Your task to perform on an android device: turn on priority inbox in the gmail app Image 0: 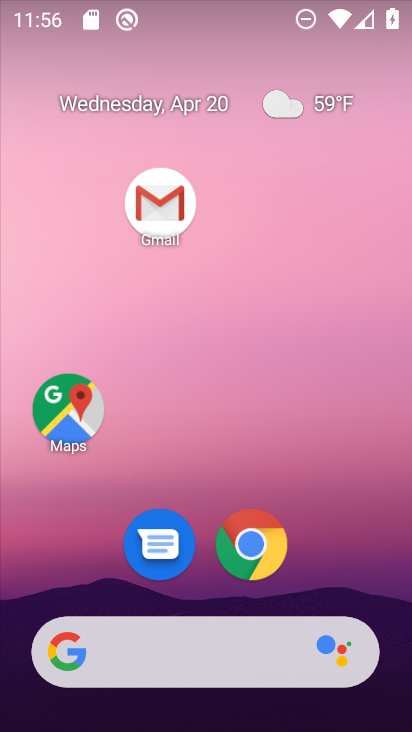
Step 0: click (171, 181)
Your task to perform on an android device: turn on priority inbox in the gmail app Image 1: 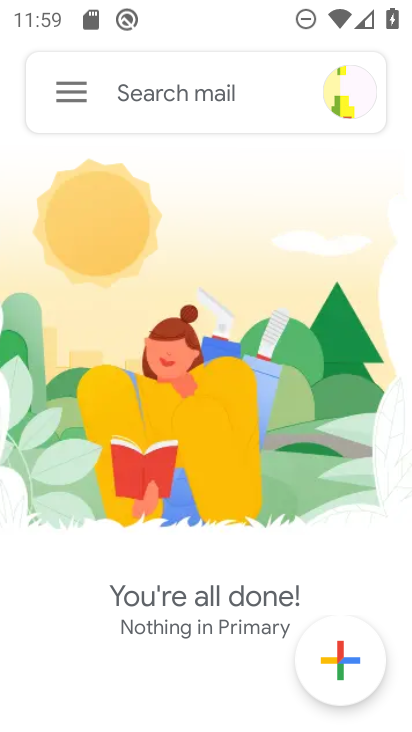
Step 1: click (66, 82)
Your task to perform on an android device: turn on priority inbox in the gmail app Image 2: 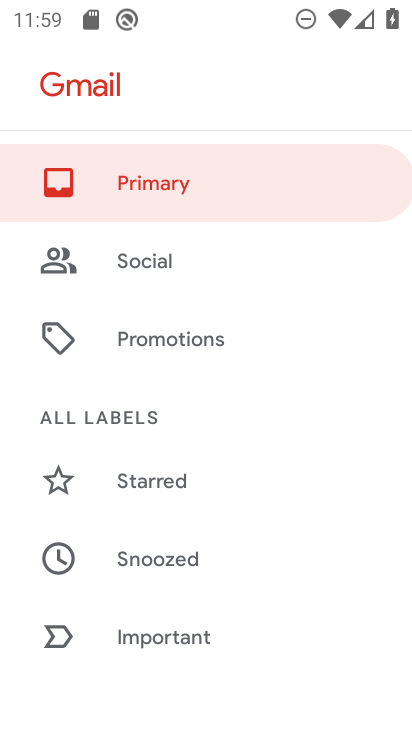
Step 2: drag from (191, 631) to (240, 130)
Your task to perform on an android device: turn on priority inbox in the gmail app Image 3: 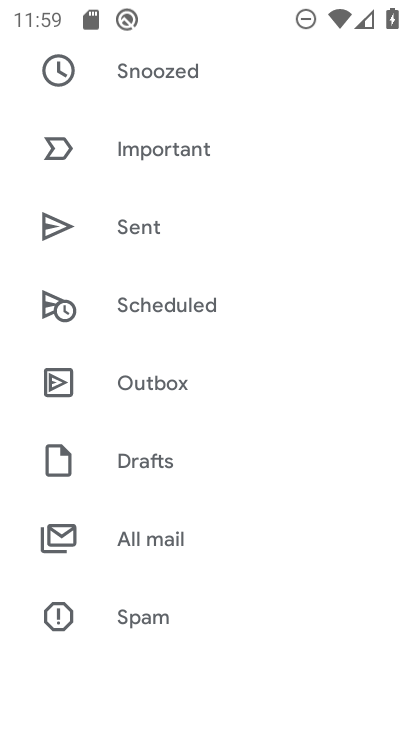
Step 3: drag from (248, 552) to (317, 194)
Your task to perform on an android device: turn on priority inbox in the gmail app Image 4: 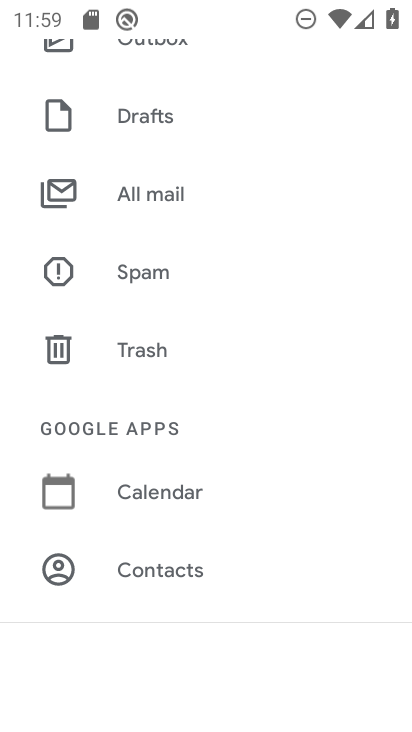
Step 4: drag from (322, 211) to (239, 710)
Your task to perform on an android device: turn on priority inbox in the gmail app Image 5: 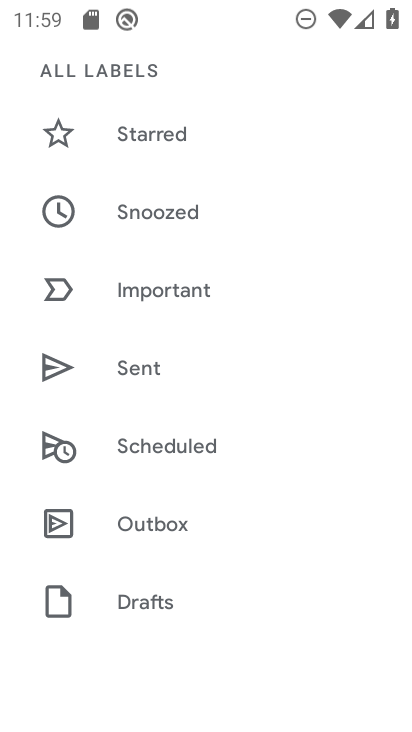
Step 5: drag from (211, 190) to (230, 691)
Your task to perform on an android device: turn on priority inbox in the gmail app Image 6: 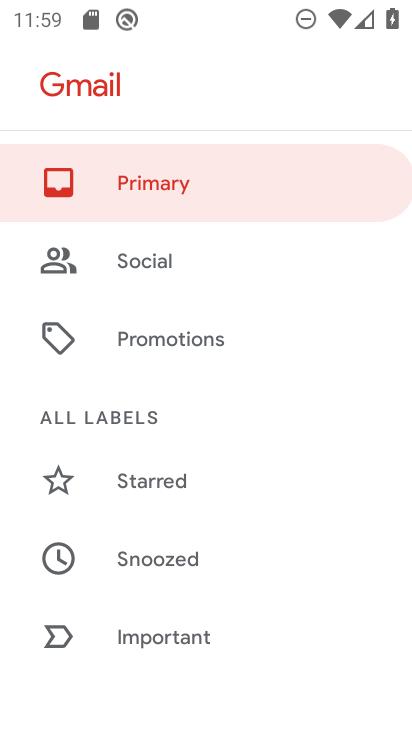
Step 6: drag from (224, 488) to (272, 59)
Your task to perform on an android device: turn on priority inbox in the gmail app Image 7: 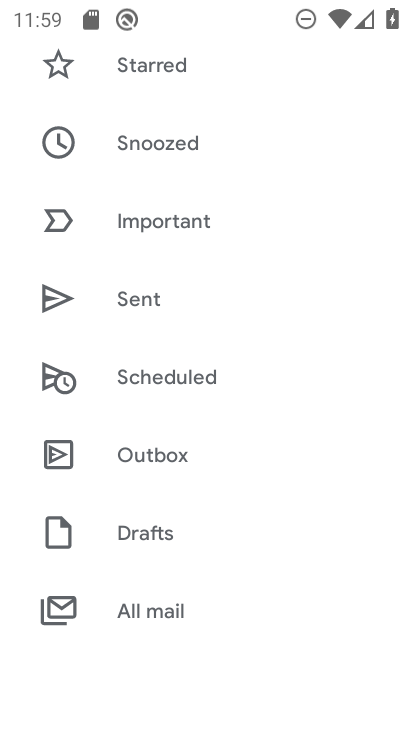
Step 7: drag from (302, 501) to (305, 144)
Your task to perform on an android device: turn on priority inbox in the gmail app Image 8: 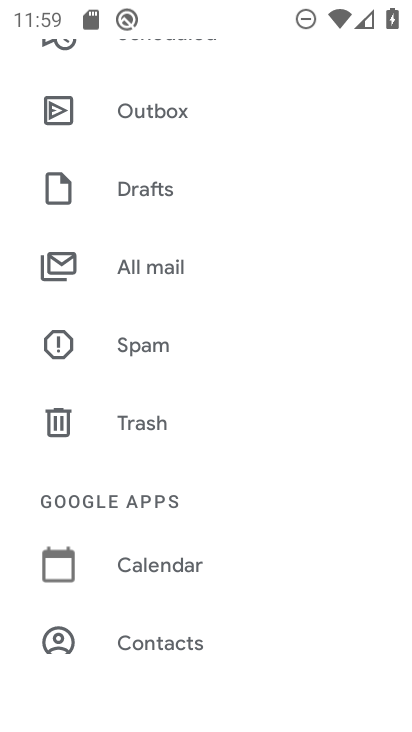
Step 8: drag from (267, 583) to (287, 119)
Your task to perform on an android device: turn on priority inbox in the gmail app Image 9: 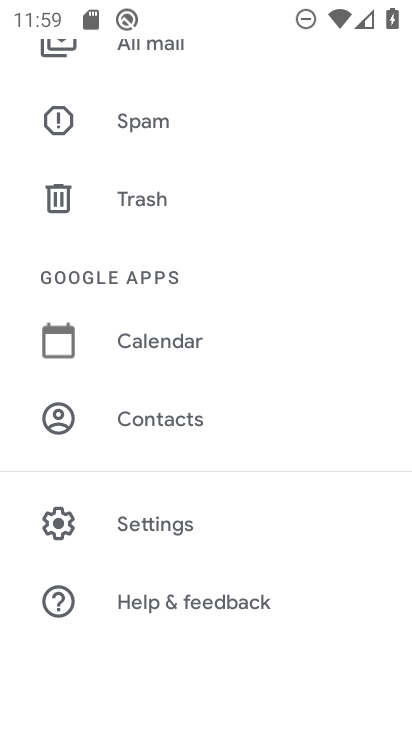
Step 9: click (212, 524)
Your task to perform on an android device: turn on priority inbox in the gmail app Image 10: 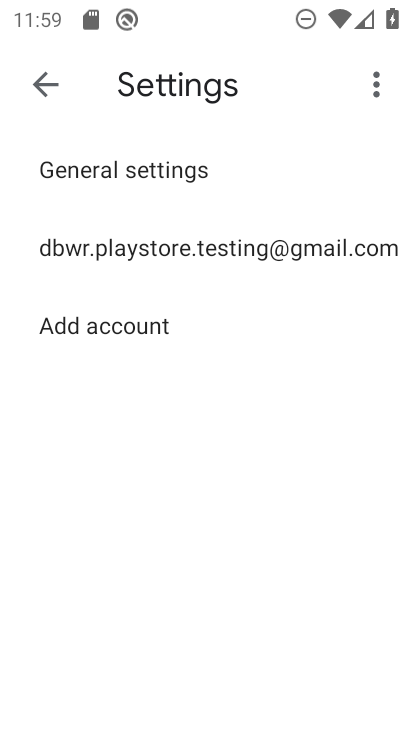
Step 10: click (233, 249)
Your task to perform on an android device: turn on priority inbox in the gmail app Image 11: 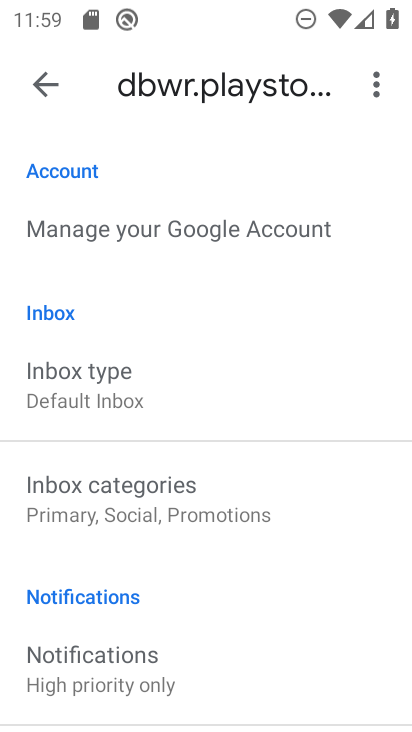
Step 11: click (147, 392)
Your task to perform on an android device: turn on priority inbox in the gmail app Image 12: 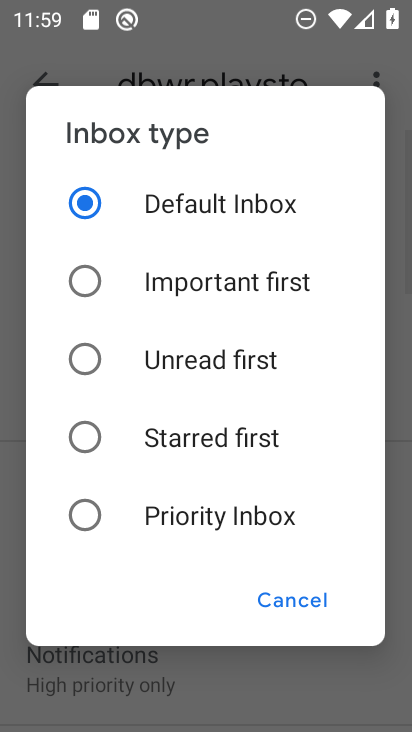
Step 12: click (167, 512)
Your task to perform on an android device: turn on priority inbox in the gmail app Image 13: 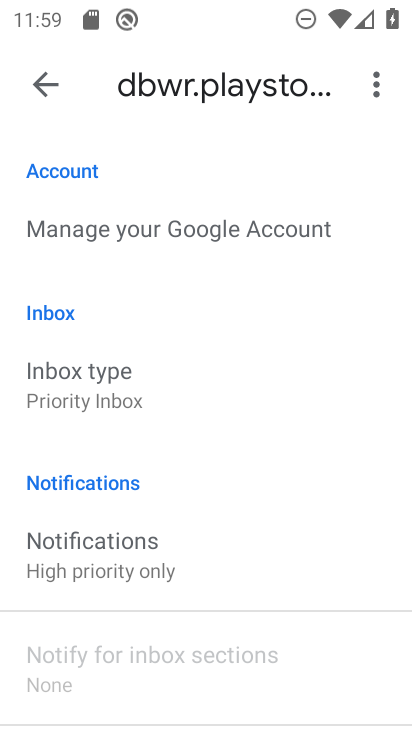
Step 13: task complete